Your task to perform on an android device: toggle translation in the chrome app Image 0: 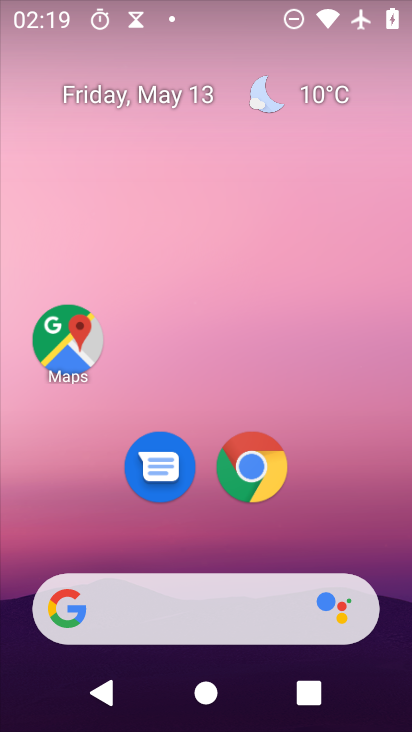
Step 0: click (268, 468)
Your task to perform on an android device: toggle translation in the chrome app Image 1: 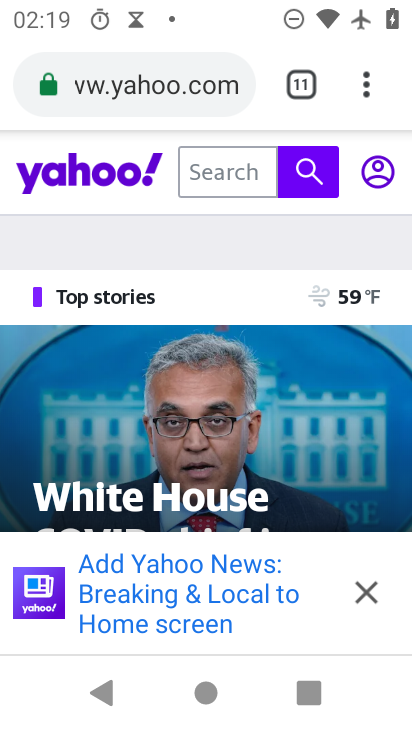
Step 1: click (372, 92)
Your task to perform on an android device: toggle translation in the chrome app Image 2: 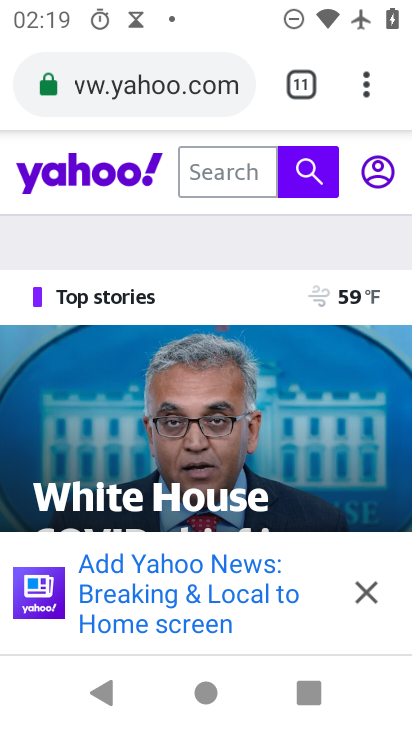
Step 2: click (367, 87)
Your task to perform on an android device: toggle translation in the chrome app Image 3: 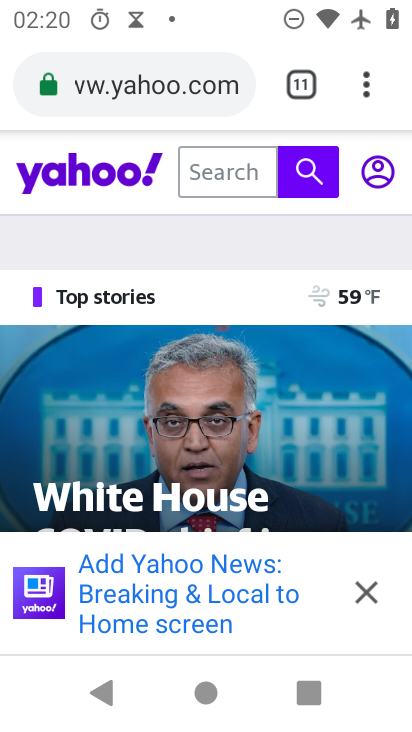
Step 3: click (372, 68)
Your task to perform on an android device: toggle translation in the chrome app Image 4: 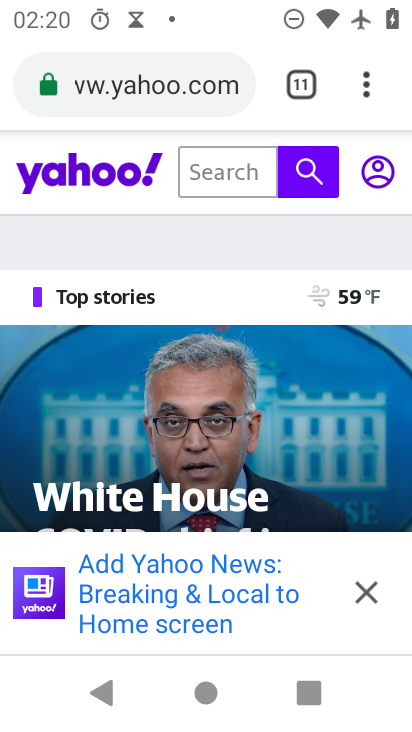
Step 4: click (356, 87)
Your task to perform on an android device: toggle translation in the chrome app Image 5: 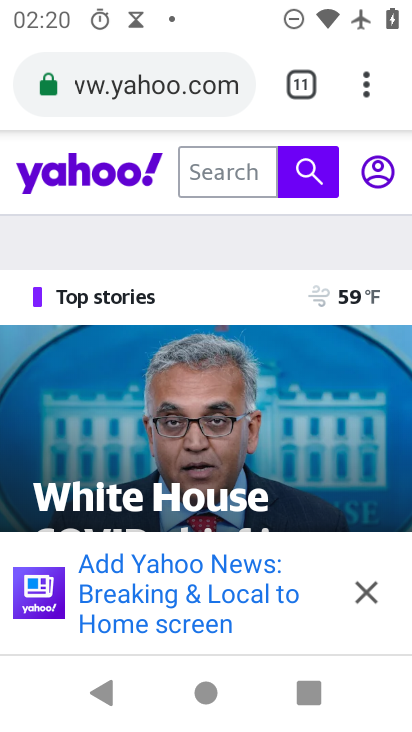
Step 5: click (353, 85)
Your task to perform on an android device: toggle translation in the chrome app Image 6: 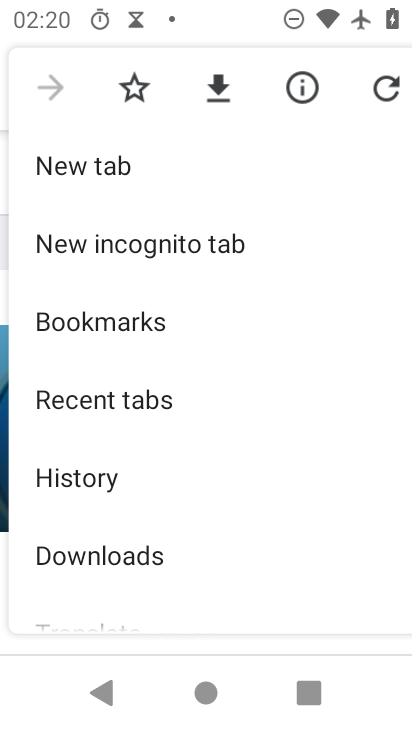
Step 6: drag from (190, 563) to (132, 94)
Your task to perform on an android device: toggle translation in the chrome app Image 7: 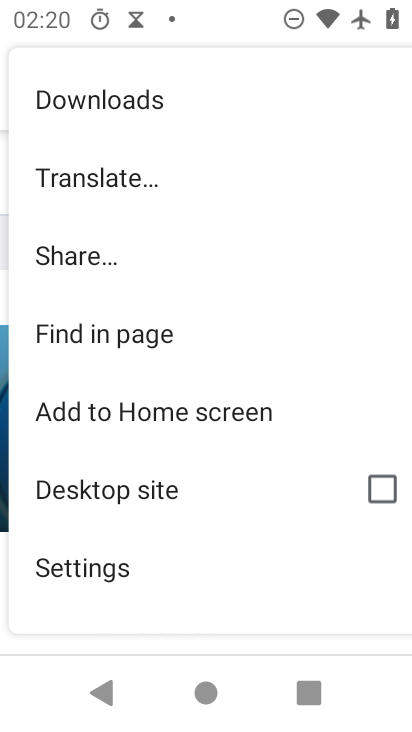
Step 7: drag from (176, 447) to (169, 218)
Your task to perform on an android device: toggle translation in the chrome app Image 8: 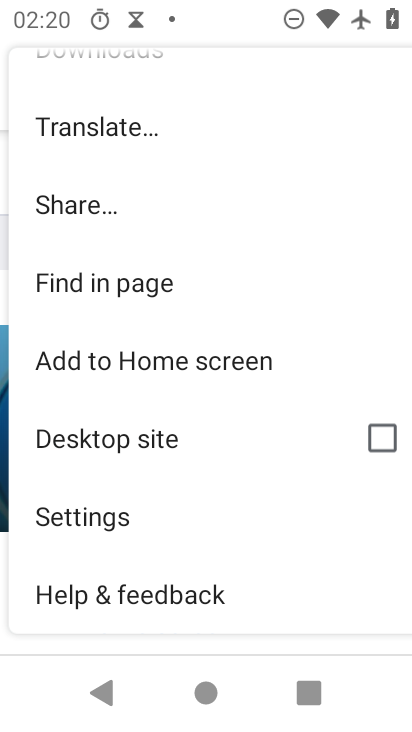
Step 8: click (106, 514)
Your task to perform on an android device: toggle translation in the chrome app Image 9: 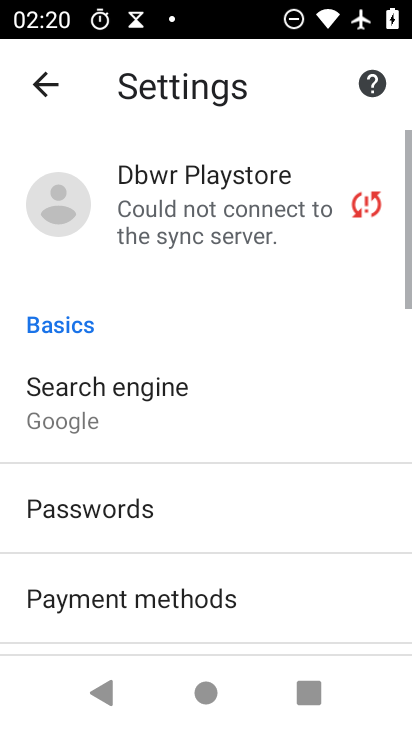
Step 9: drag from (202, 585) to (160, 181)
Your task to perform on an android device: toggle translation in the chrome app Image 10: 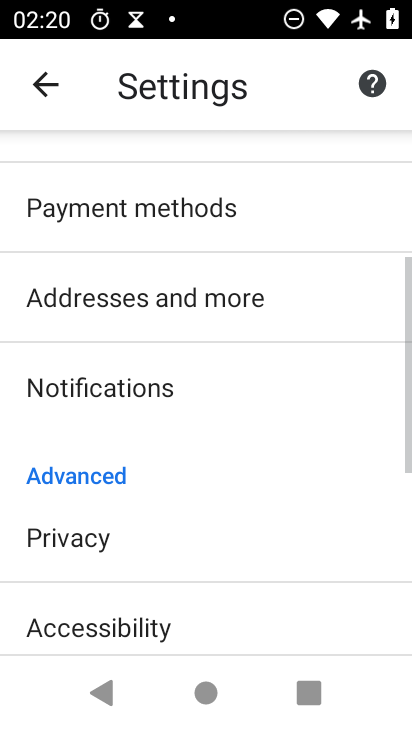
Step 10: drag from (155, 494) to (159, 255)
Your task to perform on an android device: toggle translation in the chrome app Image 11: 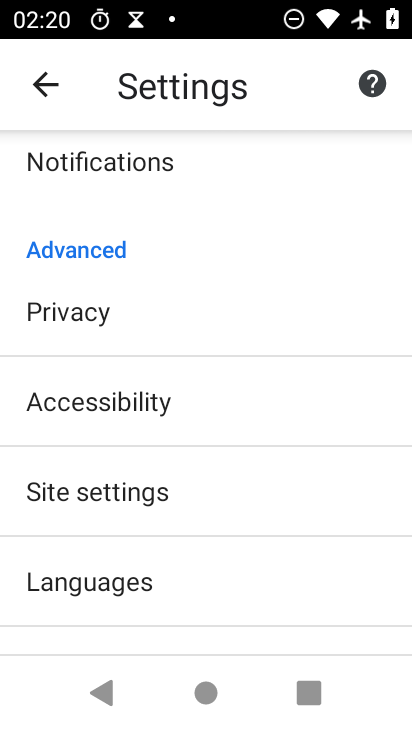
Step 11: click (196, 602)
Your task to perform on an android device: toggle translation in the chrome app Image 12: 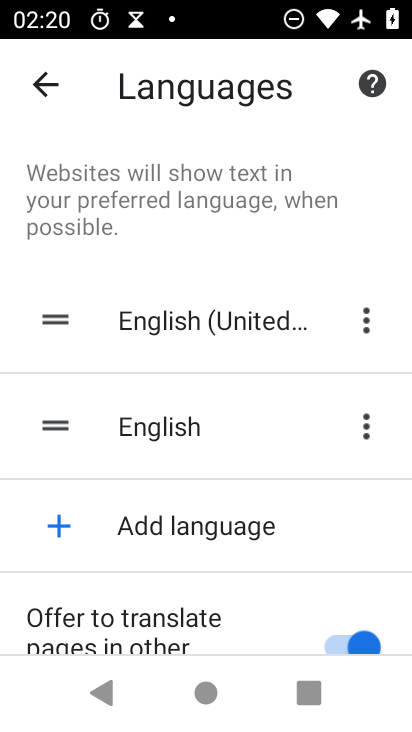
Step 12: click (359, 642)
Your task to perform on an android device: toggle translation in the chrome app Image 13: 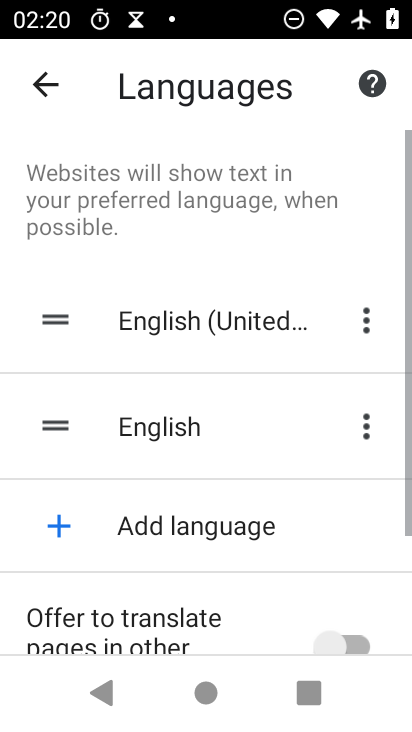
Step 13: task complete